Your task to perform on an android device: open app "Fetch Rewards" (install if not already installed) and go to login screen Image 0: 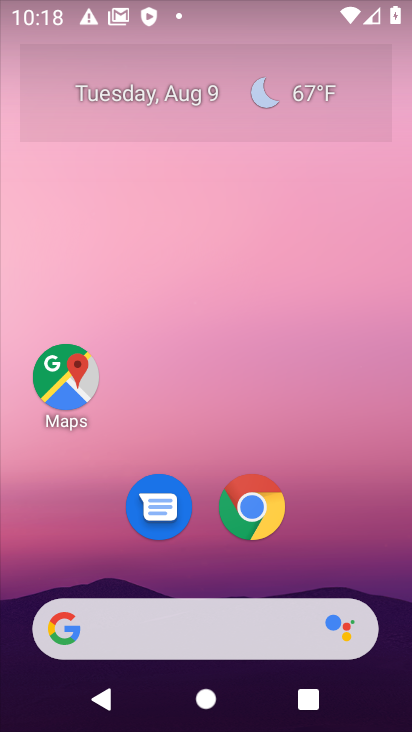
Step 0: click (200, 98)
Your task to perform on an android device: open app "Fetch Rewards" (install if not already installed) and go to login screen Image 1: 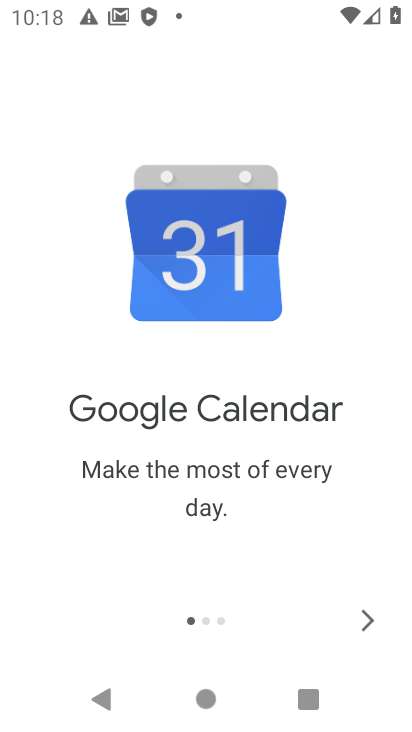
Step 1: press home button
Your task to perform on an android device: open app "Fetch Rewards" (install if not already installed) and go to login screen Image 2: 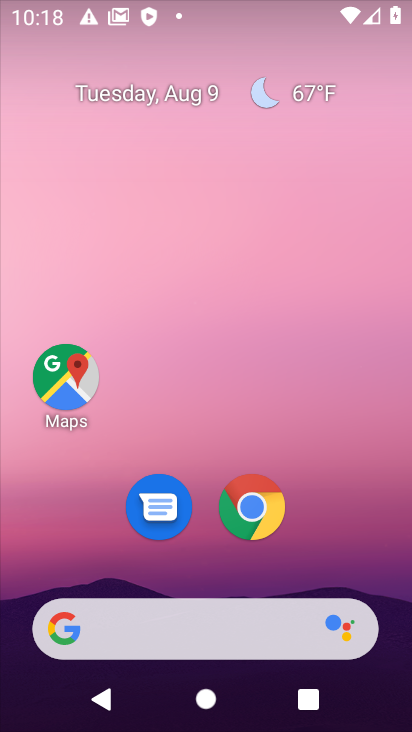
Step 2: drag from (261, 522) to (279, 123)
Your task to perform on an android device: open app "Fetch Rewards" (install if not already installed) and go to login screen Image 3: 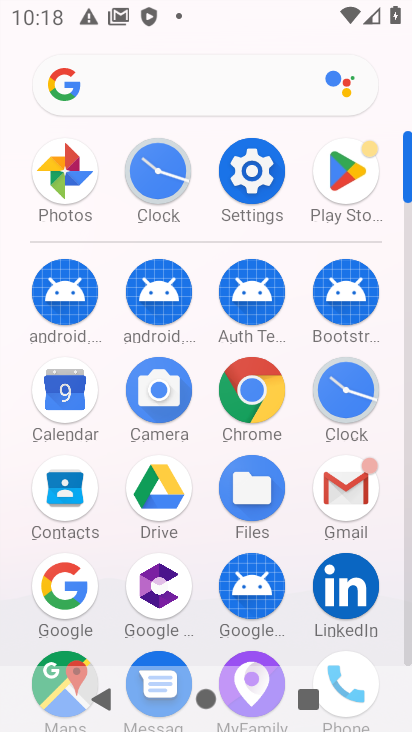
Step 3: click (343, 170)
Your task to perform on an android device: open app "Fetch Rewards" (install if not already installed) and go to login screen Image 4: 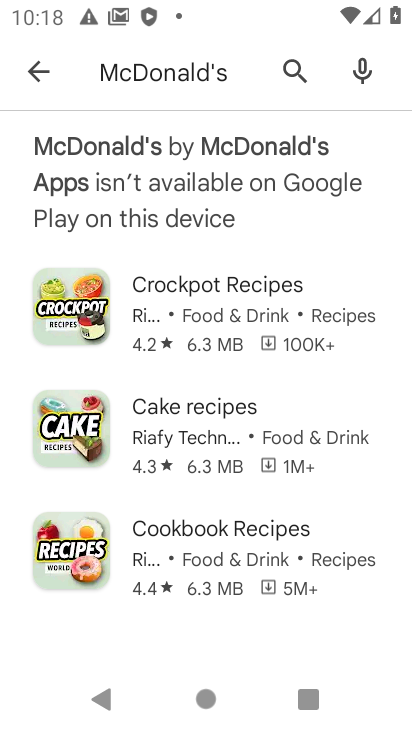
Step 4: click (43, 73)
Your task to perform on an android device: open app "Fetch Rewards" (install if not already installed) and go to login screen Image 5: 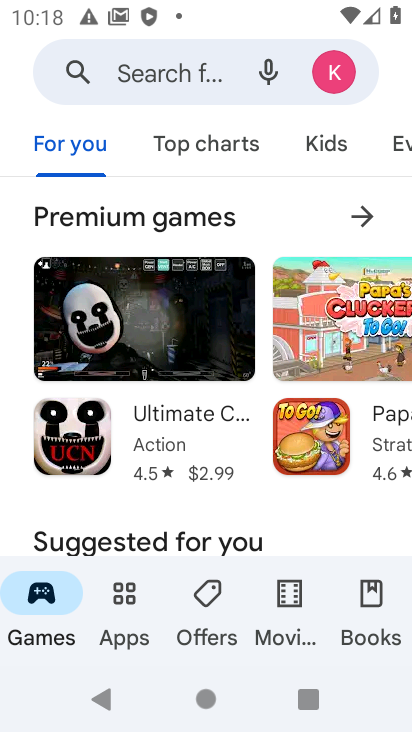
Step 5: click (144, 61)
Your task to perform on an android device: open app "Fetch Rewards" (install if not already installed) and go to login screen Image 6: 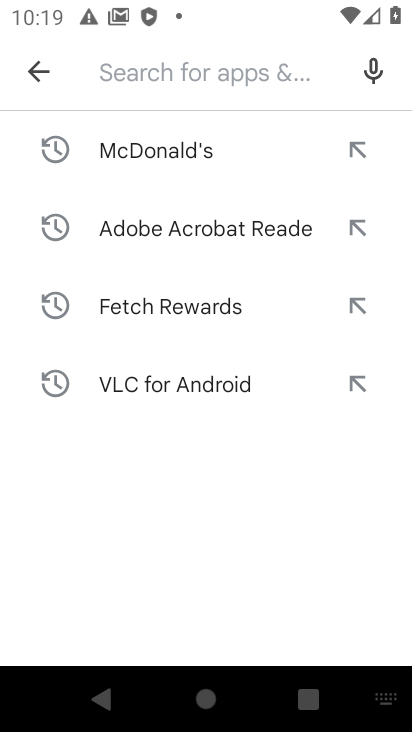
Step 6: type "Fetch Rewards"
Your task to perform on an android device: open app "Fetch Rewards" (install if not already installed) and go to login screen Image 7: 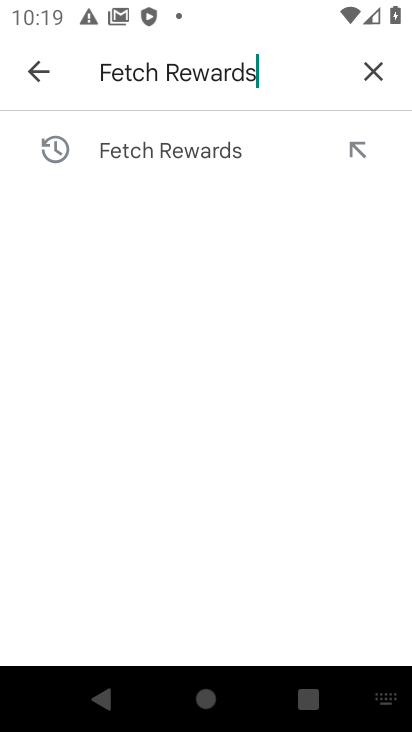
Step 7: press enter
Your task to perform on an android device: open app "Fetch Rewards" (install if not already installed) and go to login screen Image 8: 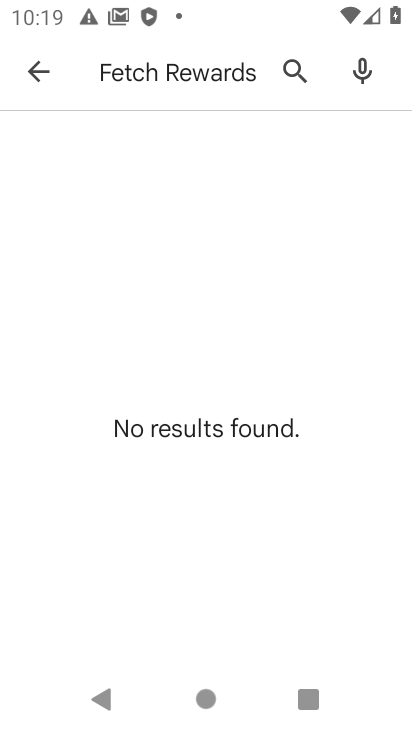
Step 8: task complete